Your task to perform on an android device: change text size in settings app Image 0: 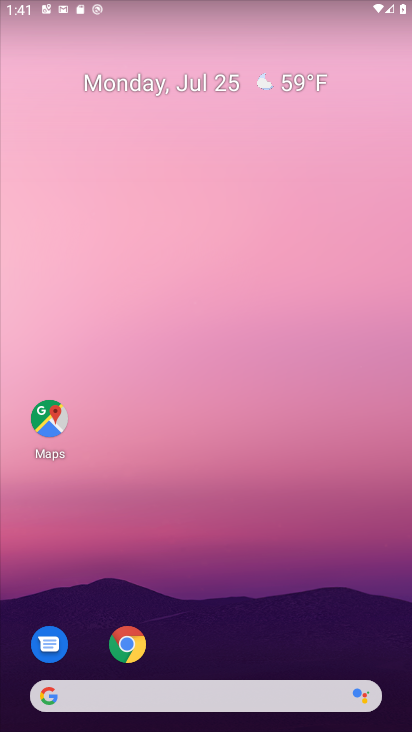
Step 0: drag from (409, 691) to (316, 98)
Your task to perform on an android device: change text size in settings app Image 1: 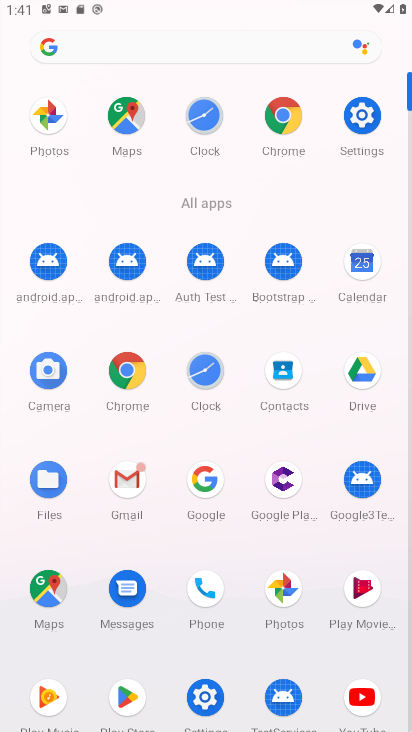
Step 1: click (365, 133)
Your task to perform on an android device: change text size in settings app Image 2: 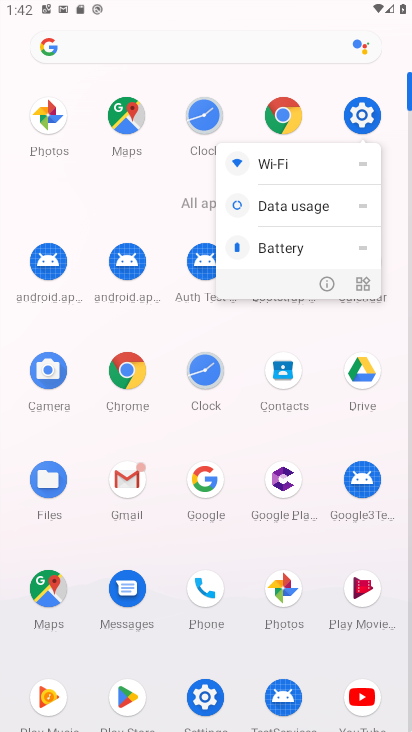
Step 2: click (358, 122)
Your task to perform on an android device: change text size in settings app Image 3: 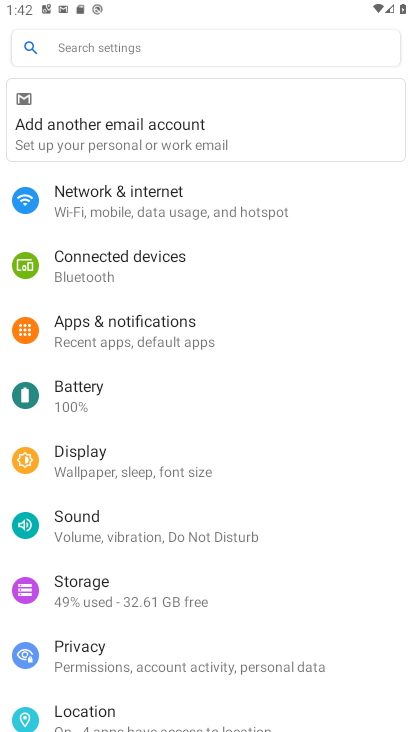
Step 3: click (69, 459)
Your task to perform on an android device: change text size in settings app Image 4: 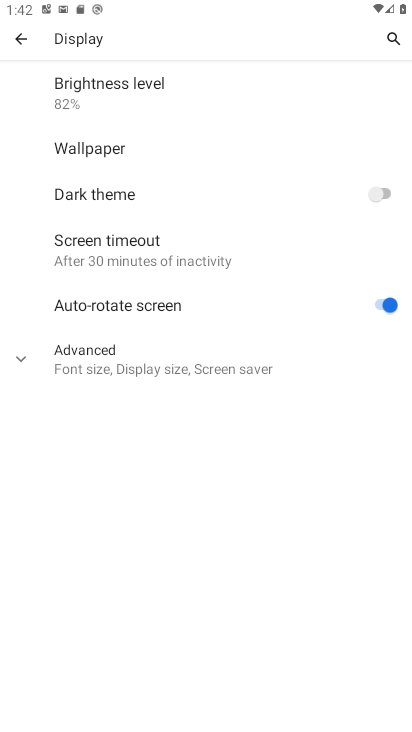
Step 4: click (36, 350)
Your task to perform on an android device: change text size in settings app Image 5: 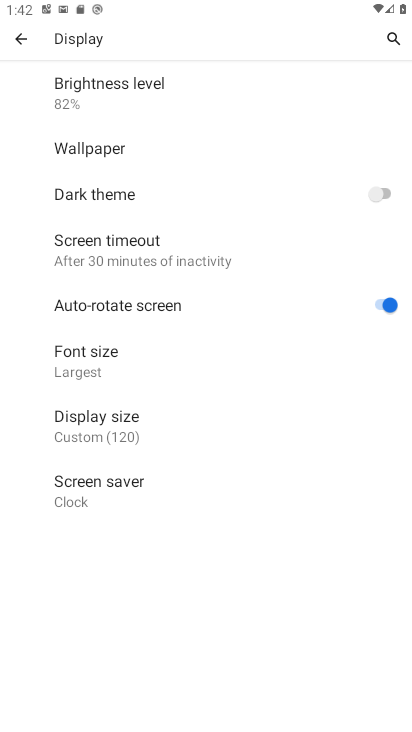
Step 5: click (93, 356)
Your task to perform on an android device: change text size in settings app Image 6: 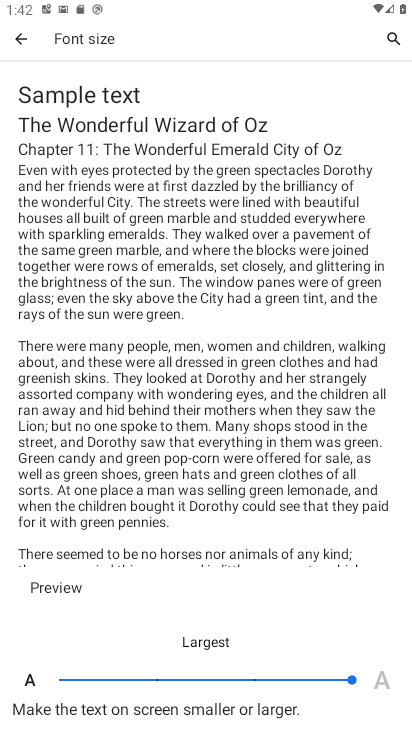
Step 6: click (278, 679)
Your task to perform on an android device: change text size in settings app Image 7: 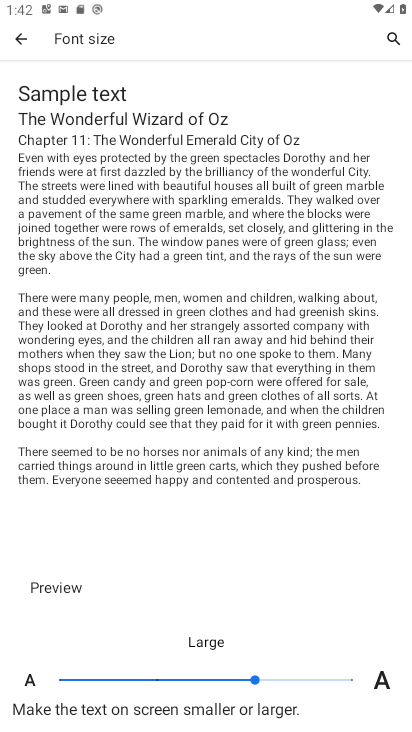
Step 7: click (257, 679)
Your task to perform on an android device: change text size in settings app Image 8: 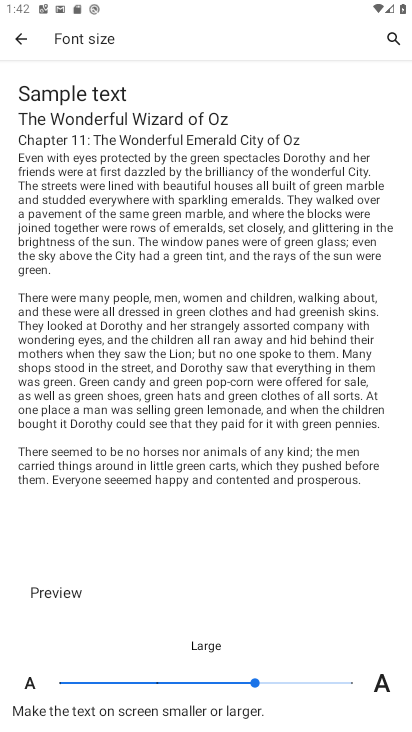
Step 8: task complete